Your task to perform on an android device: clear all cookies in the chrome app Image 0: 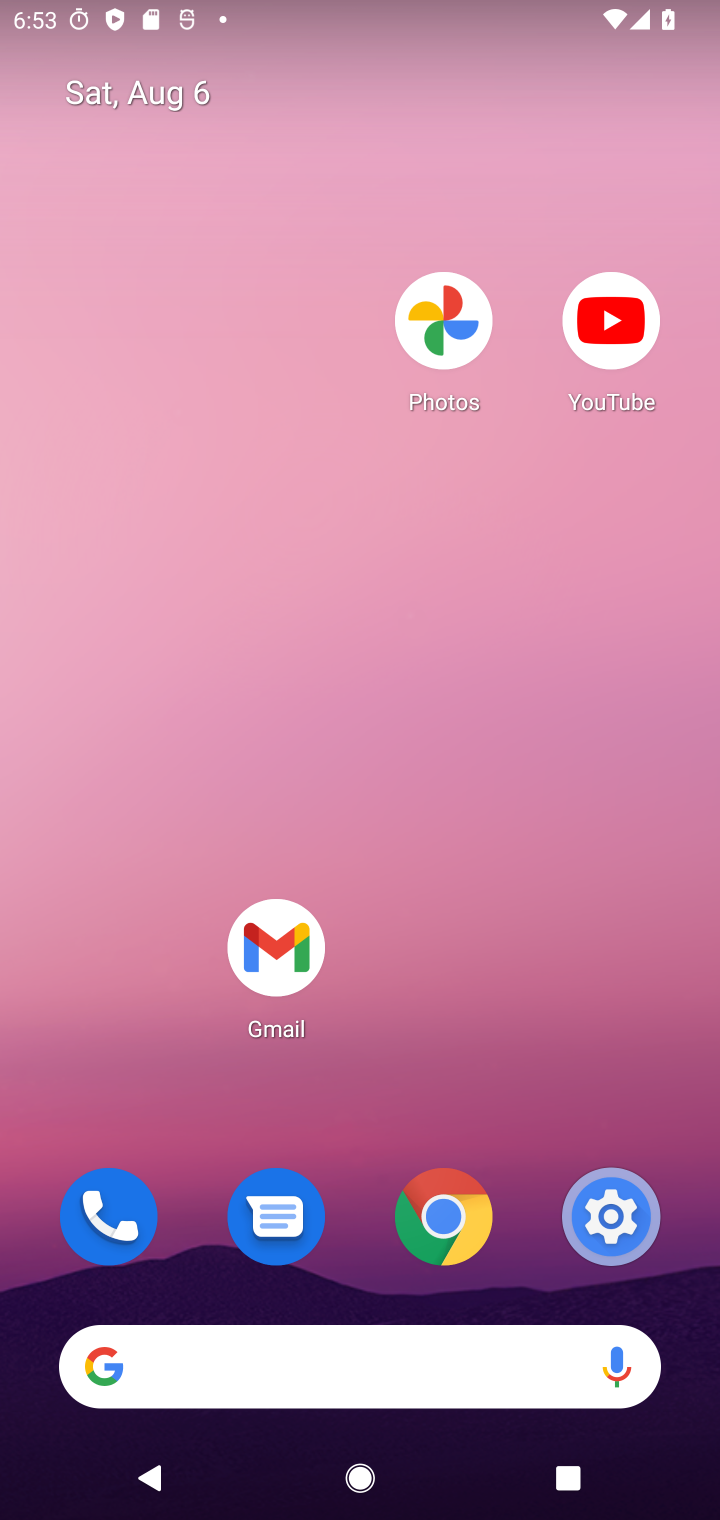
Step 0: drag from (534, 698) to (664, 169)
Your task to perform on an android device: clear all cookies in the chrome app Image 1: 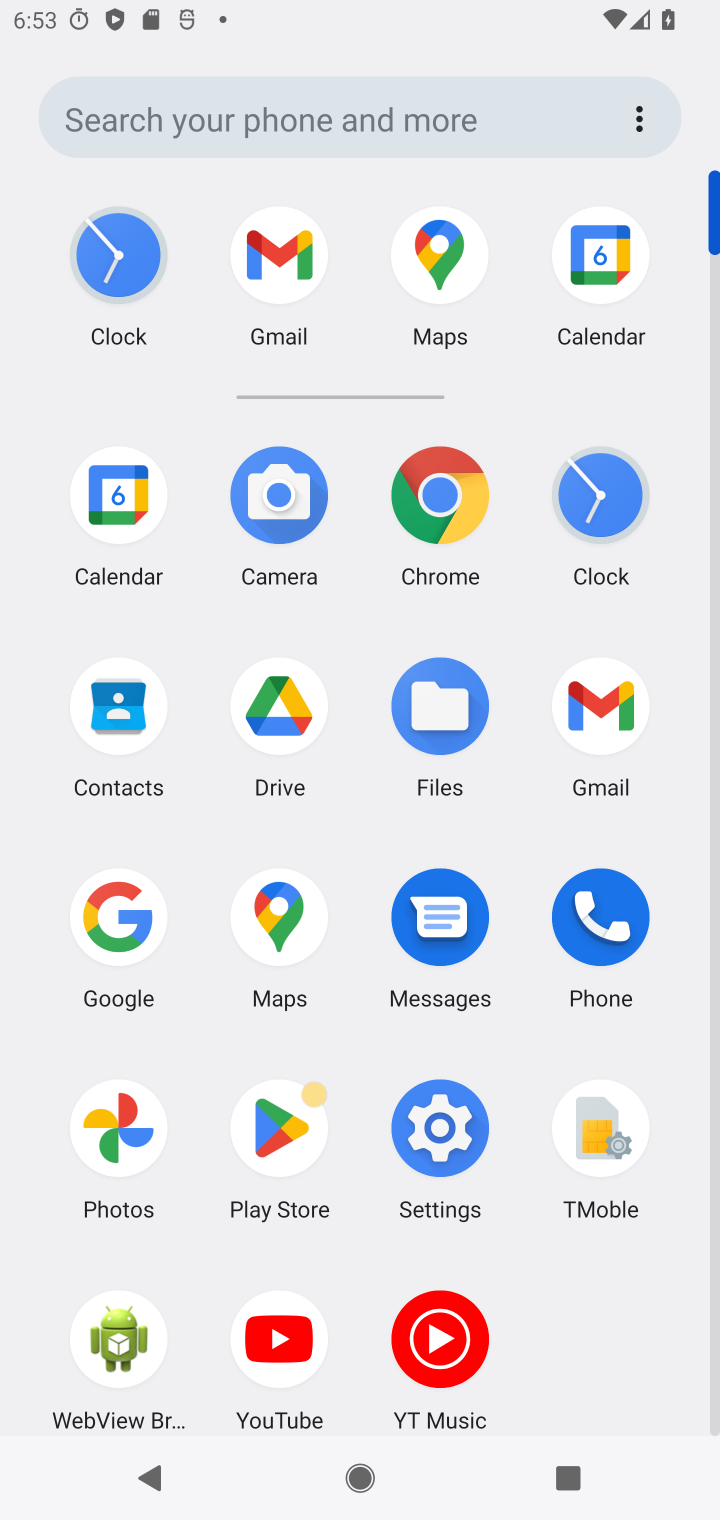
Step 1: click (427, 492)
Your task to perform on an android device: clear all cookies in the chrome app Image 2: 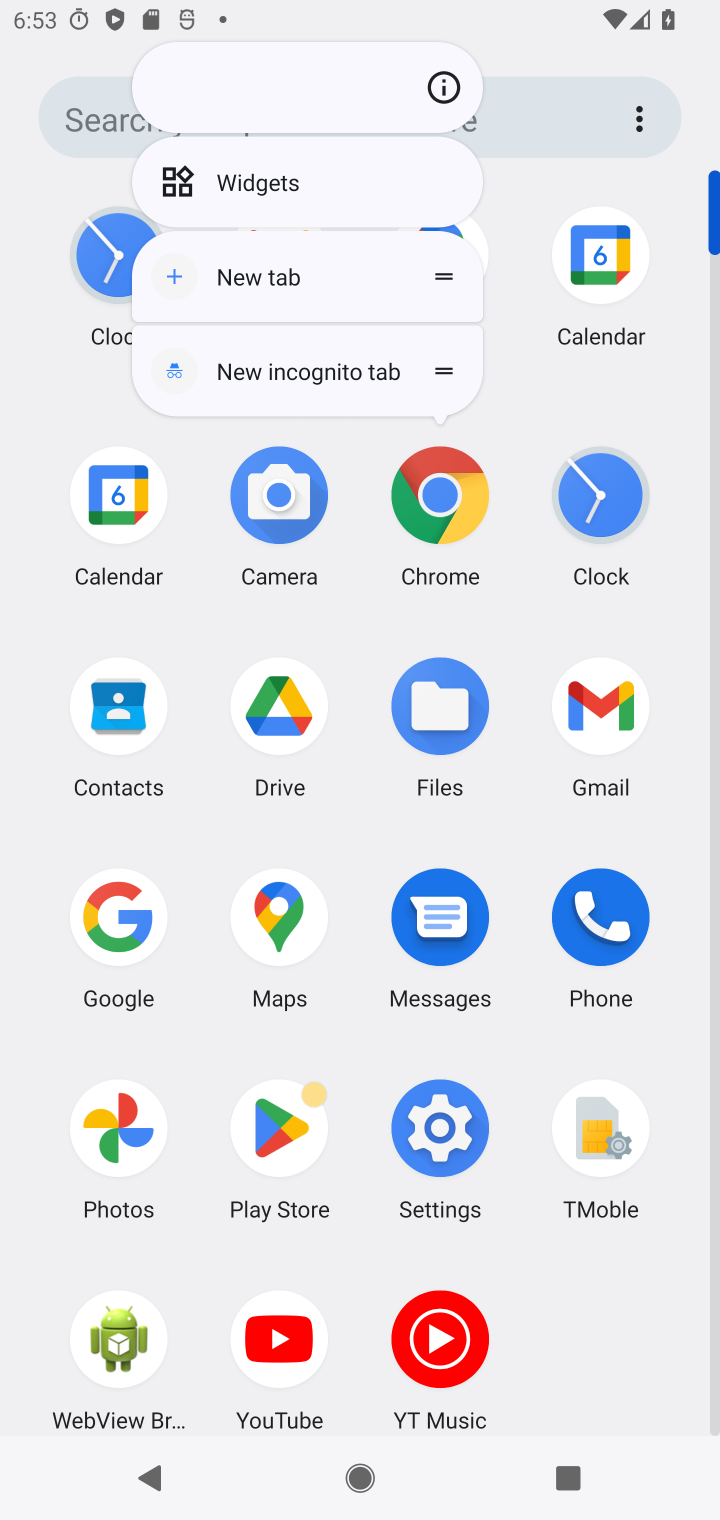
Step 2: click (427, 492)
Your task to perform on an android device: clear all cookies in the chrome app Image 3: 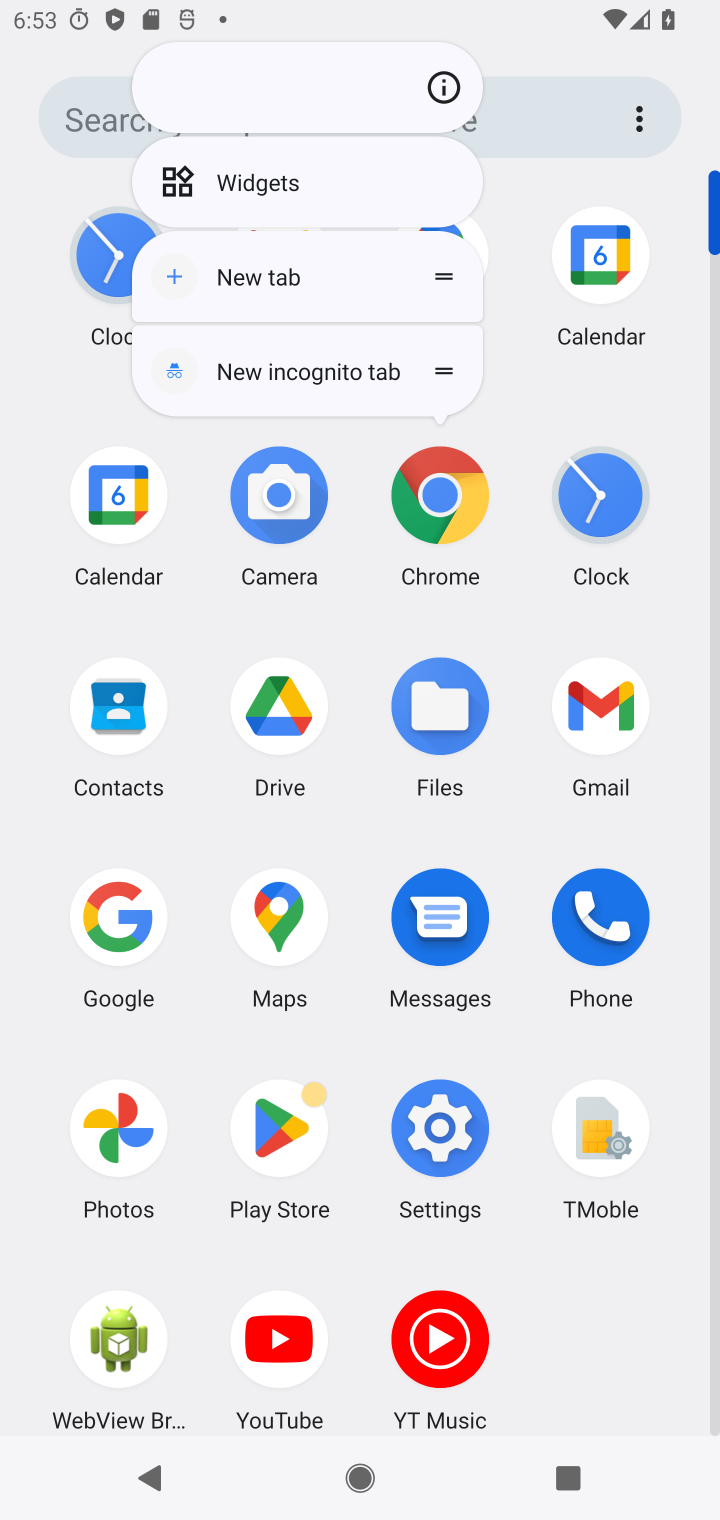
Step 3: click (436, 492)
Your task to perform on an android device: clear all cookies in the chrome app Image 4: 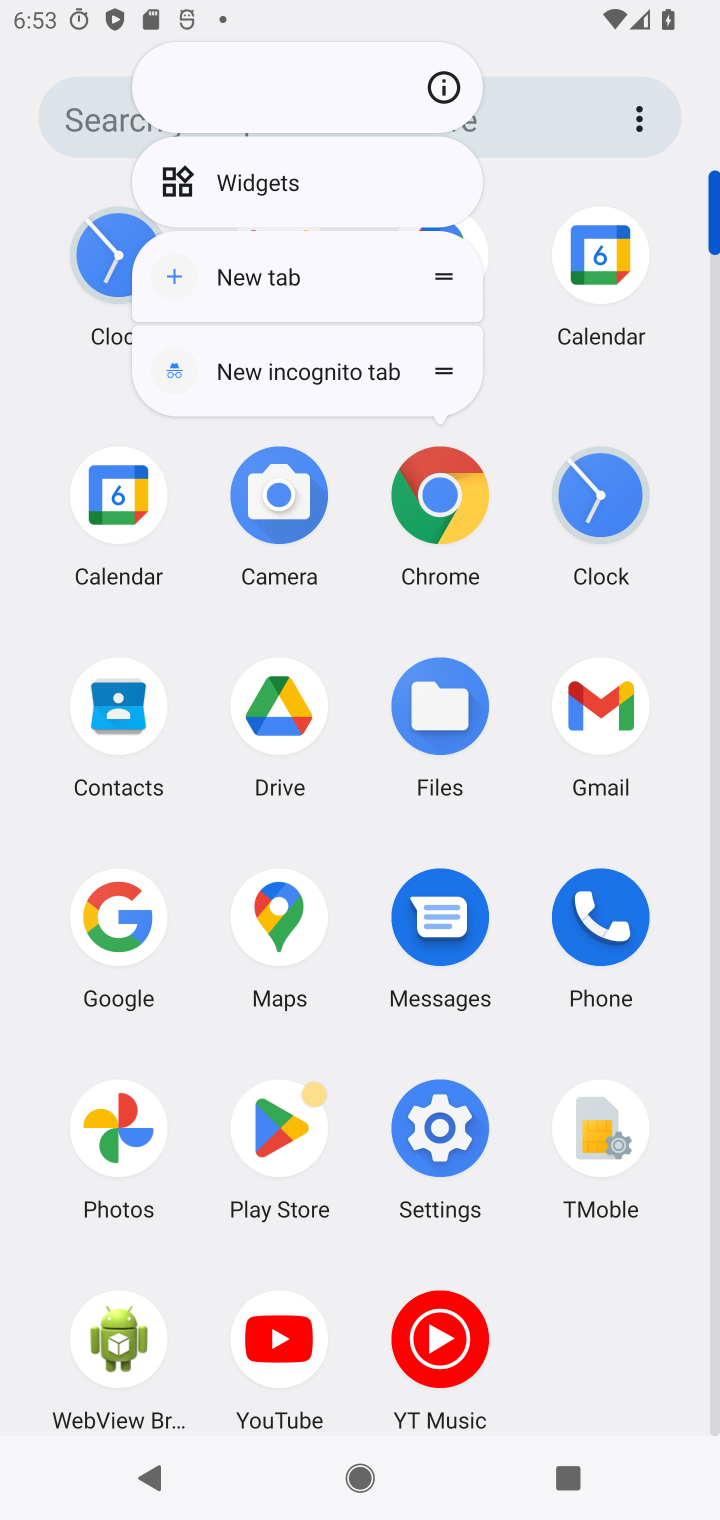
Step 4: click (515, 841)
Your task to perform on an android device: clear all cookies in the chrome app Image 5: 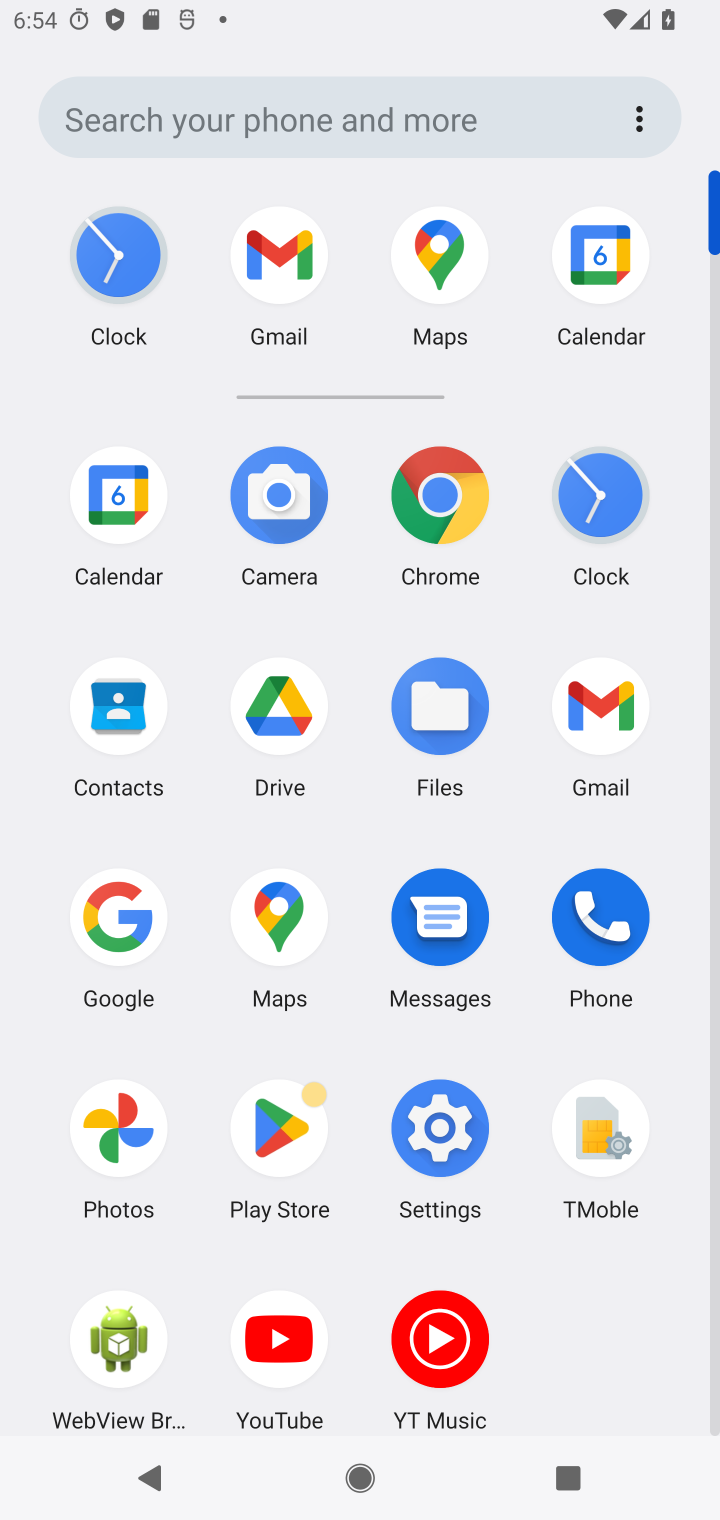
Step 5: click (422, 501)
Your task to perform on an android device: clear all cookies in the chrome app Image 6: 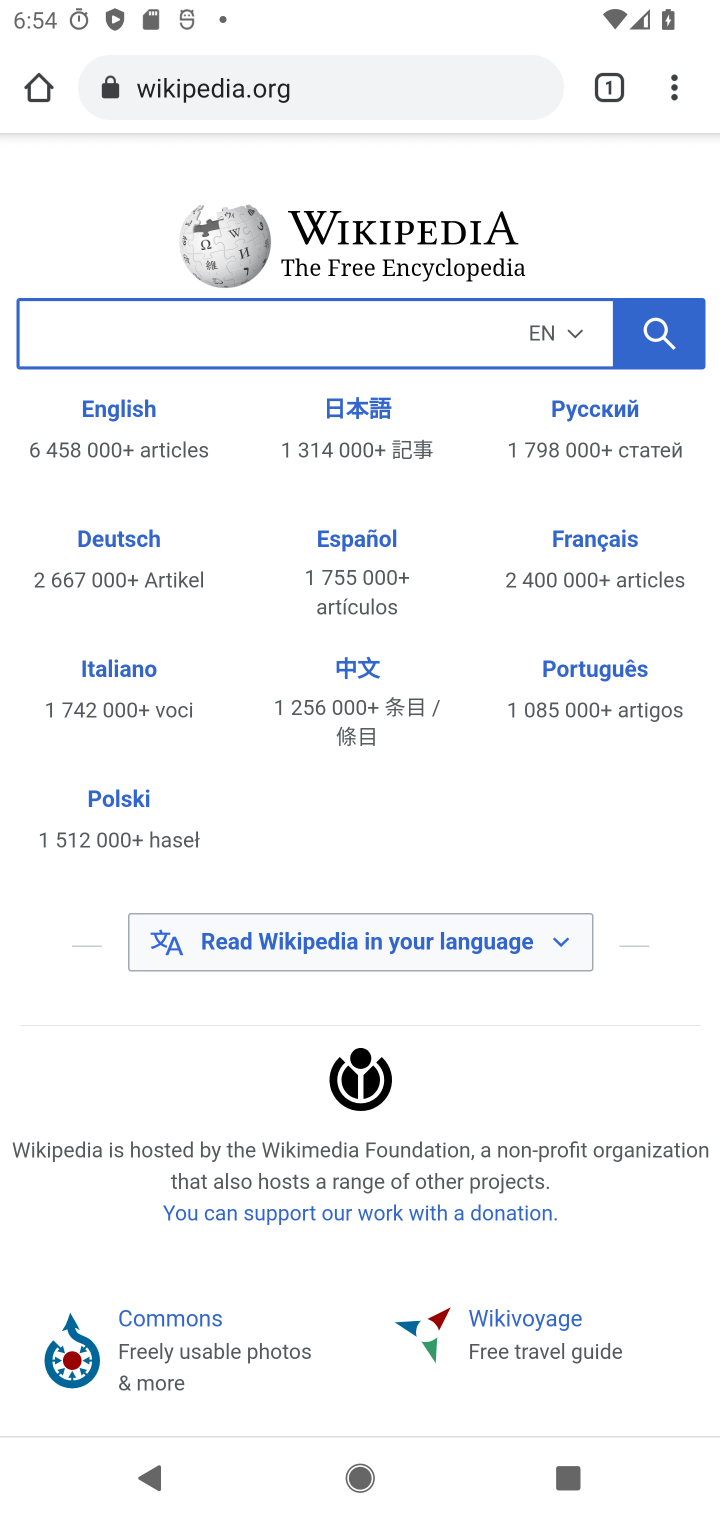
Step 6: drag from (674, 75) to (492, 443)
Your task to perform on an android device: clear all cookies in the chrome app Image 7: 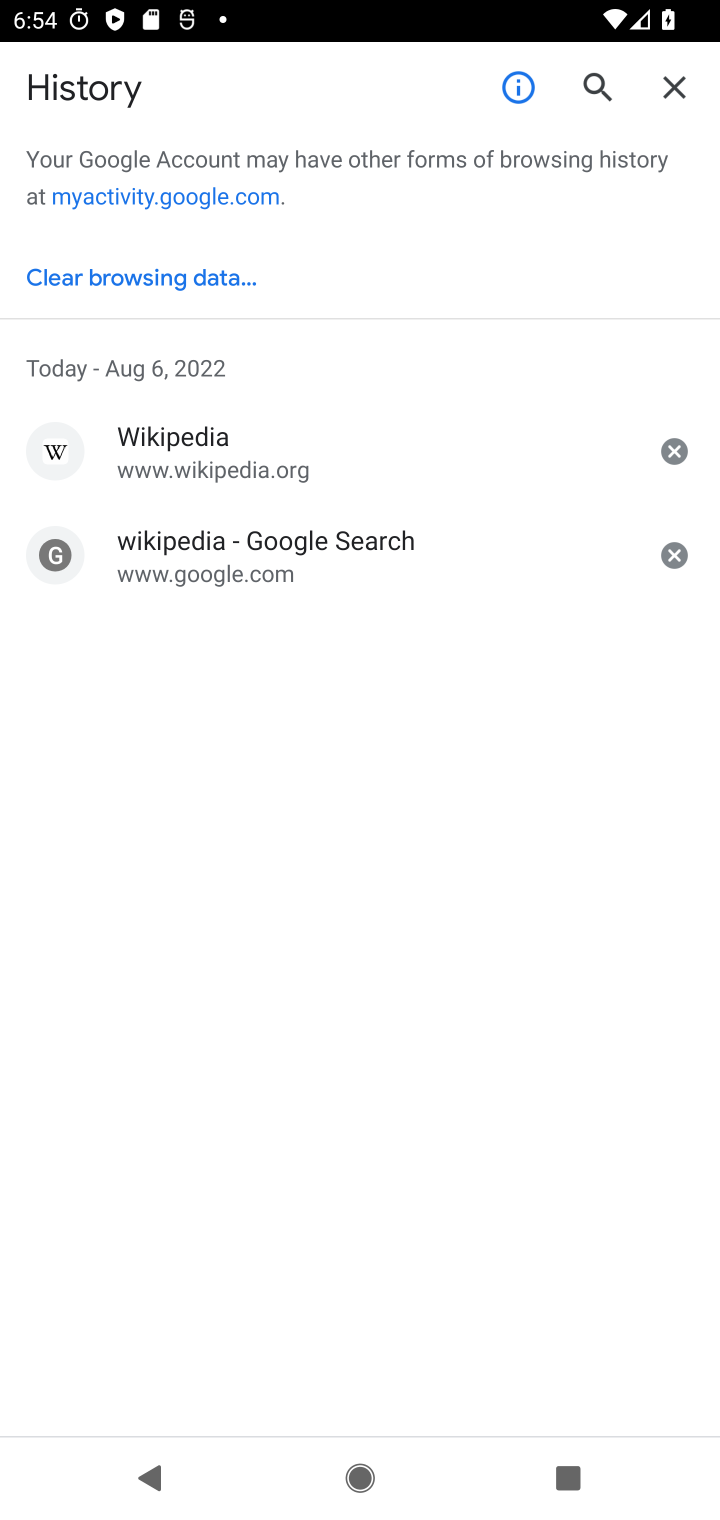
Step 7: click (168, 268)
Your task to perform on an android device: clear all cookies in the chrome app Image 8: 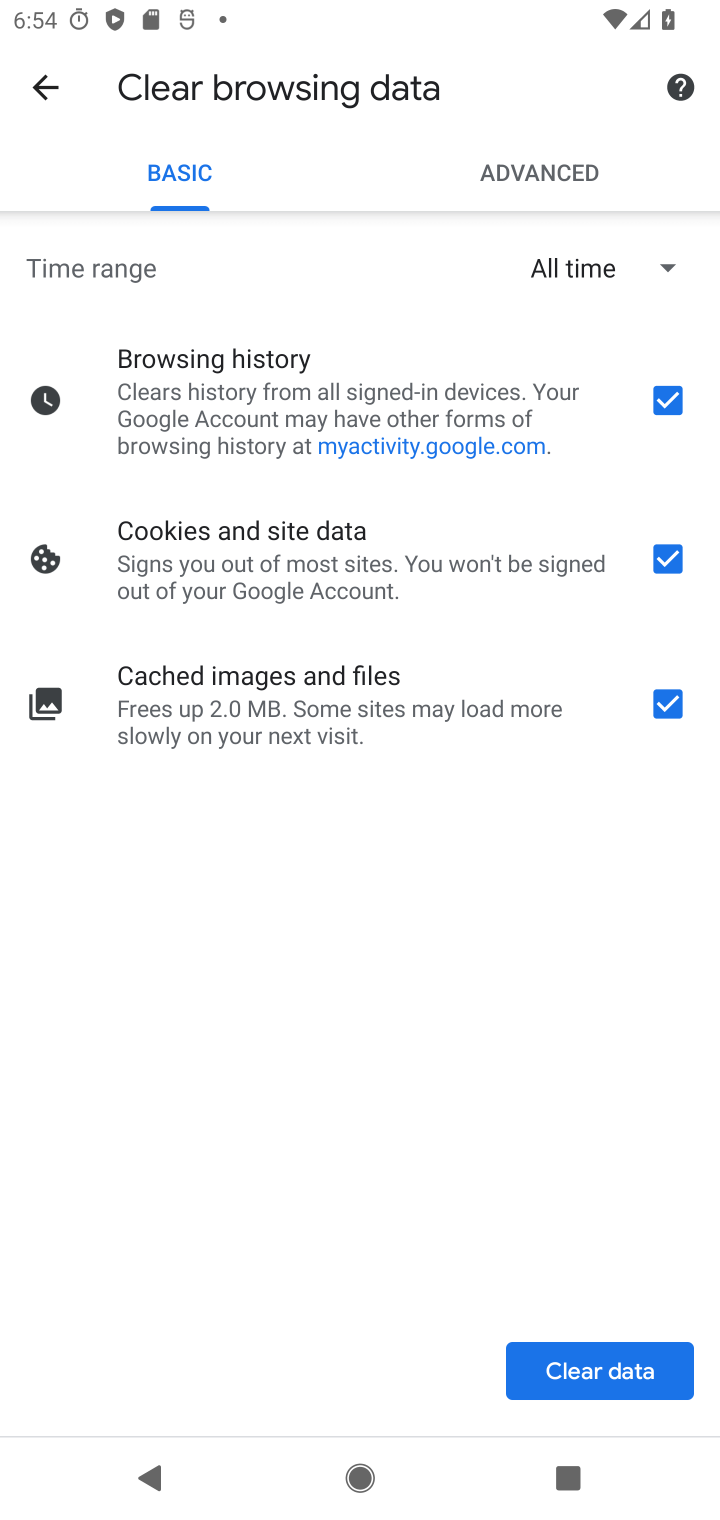
Step 8: click (579, 1383)
Your task to perform on an android device: clear all cookies in the chrome app Image 9: 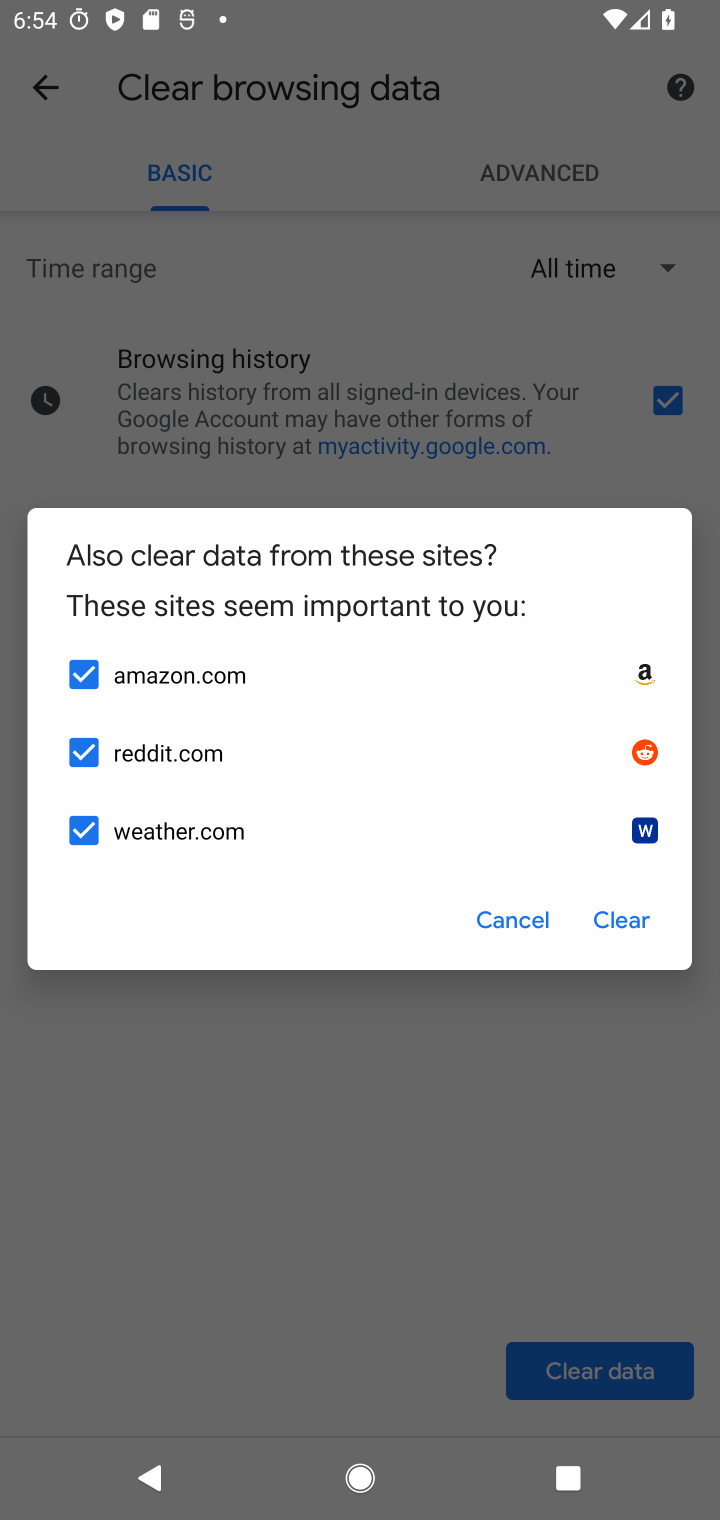
Step 9: click (616, 921)
Your task to perform on an android device: clear all cookies in the chrome app Image 10: 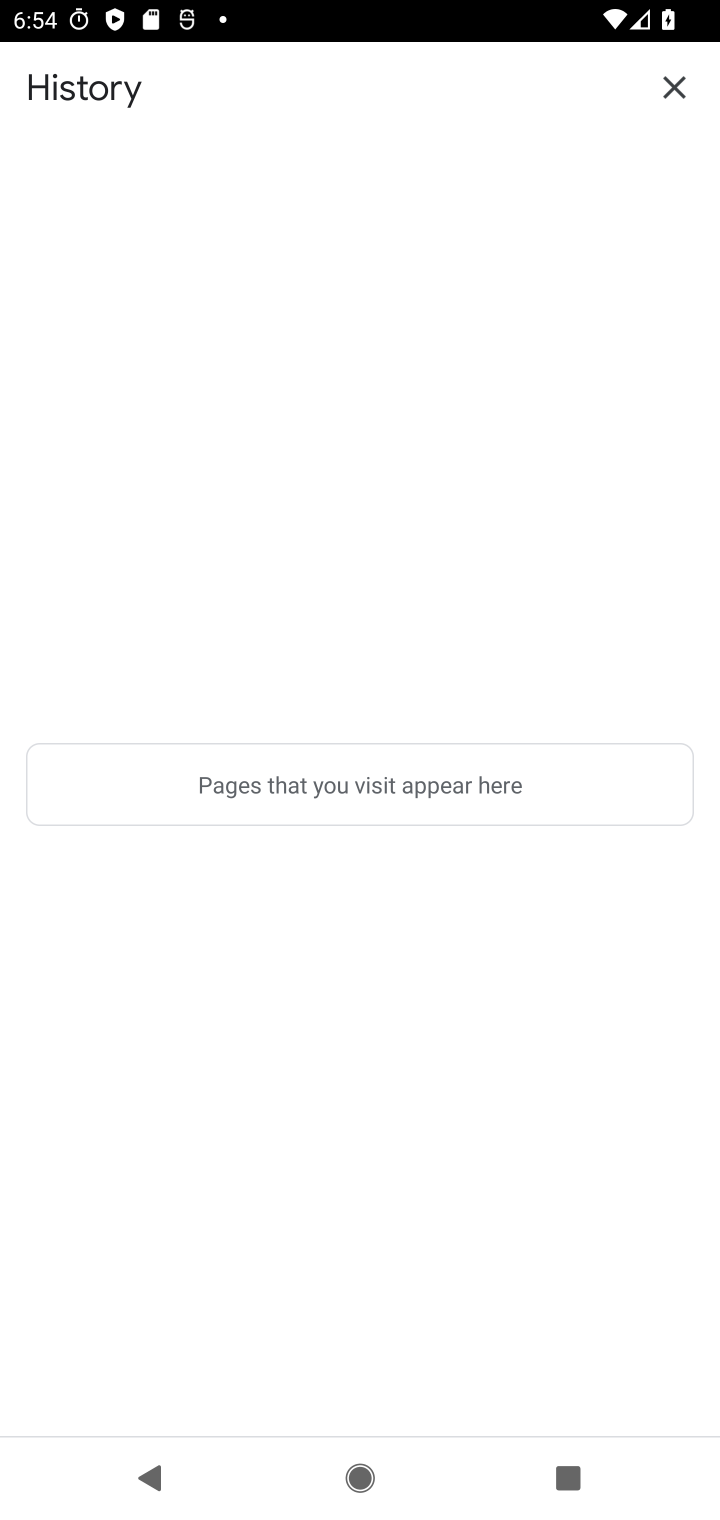
Step 10: task complete